Your task to perform on an android device: turn on translation in the chrome app Image 0: 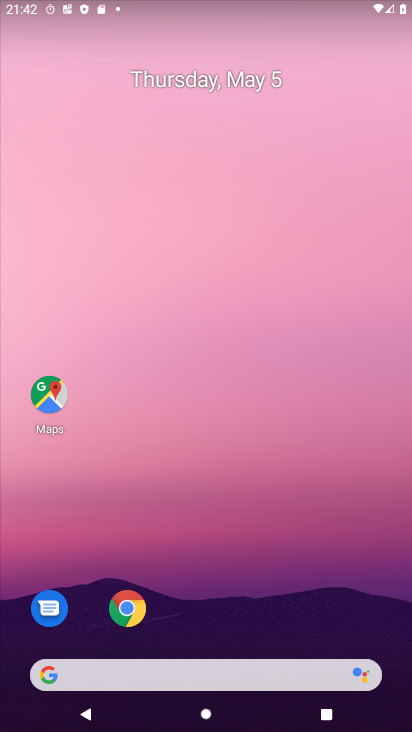
Step 0: drag from (301, 668) to (291, 9)
Your task to perform on an android device: turn on translation in the chrome app Image 1: 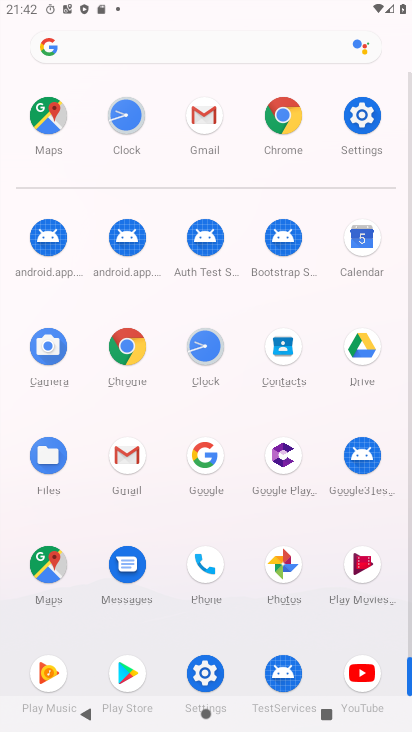
Step 1: click (135, 338)
Your task to perform on an android device: turn on translation in the chrome app Image 2: 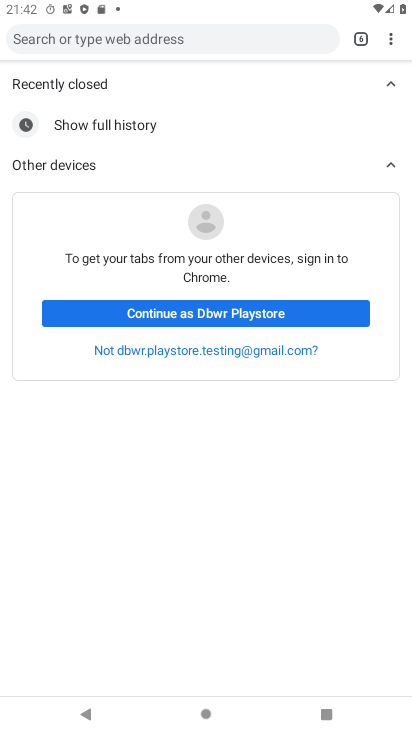
Step 2: click (392, 31)
Your task to perform on an android device: turn on translation in the chrome app Image 3: 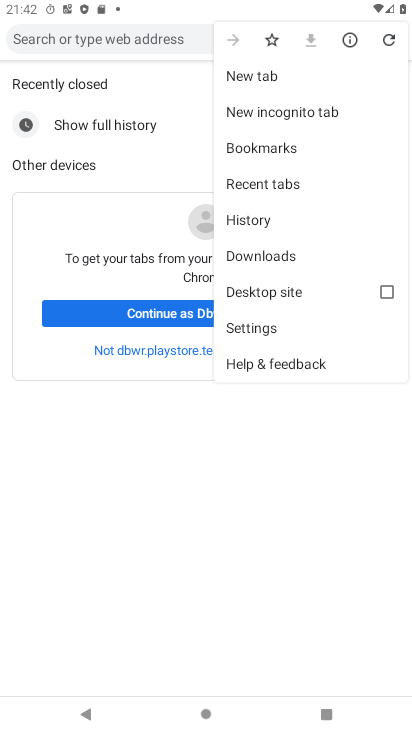
Step 3: click (265, 329)
Your task to perform on an android device: turn on translation in the chrome app Image 4: 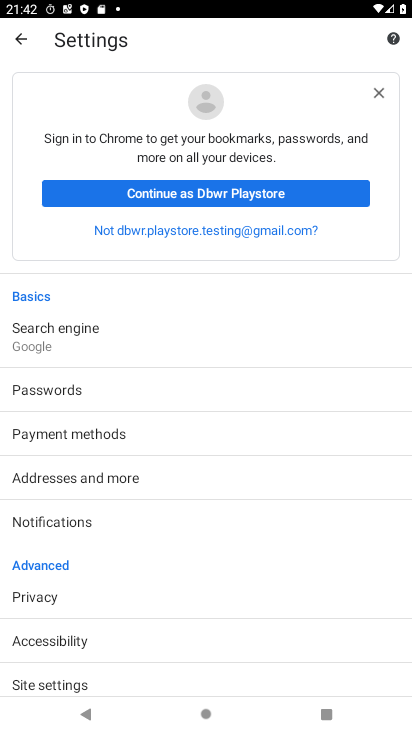
Step 4: drag from (114, 674) to (154, 198)
Your task to perform on an android device: turn on translation in the chrome app Image 5: 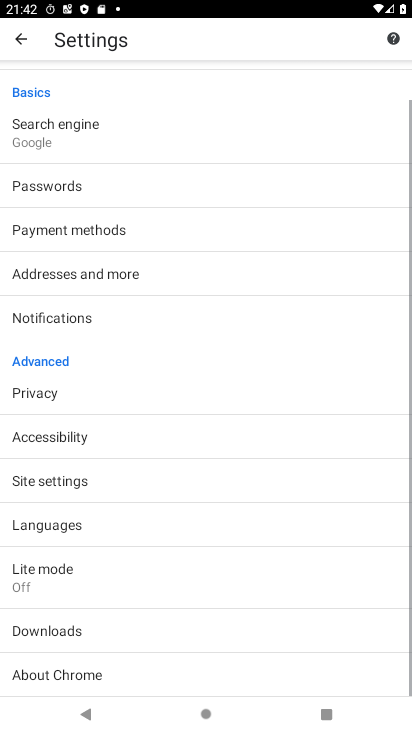
Step 5: click (80, 486)
Your task to perform on an android device: turn on translation in the chrome app Image 6: 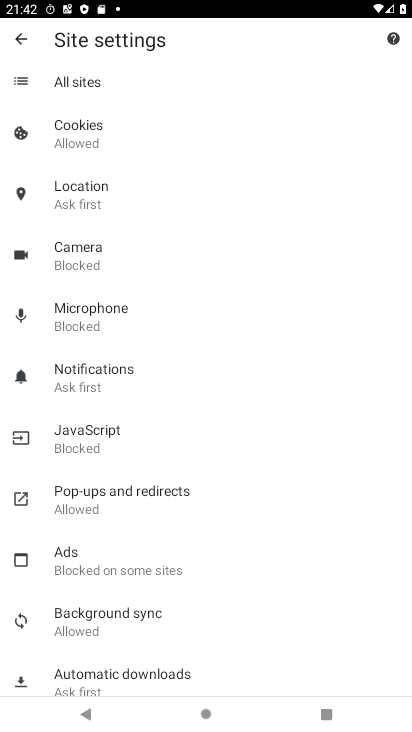
Step 6: drag from (144, 641) to (156, 47)
Your task to perform on an android device: turn on translation in the chrome app Image 7: 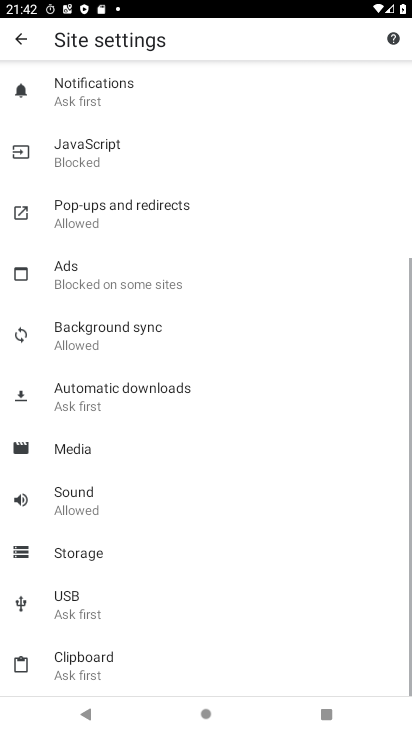
Step 7: drag from (162, 143) to (180, 676)
Your task to perform on an android device: turn on translation in the chrome app Image 8: 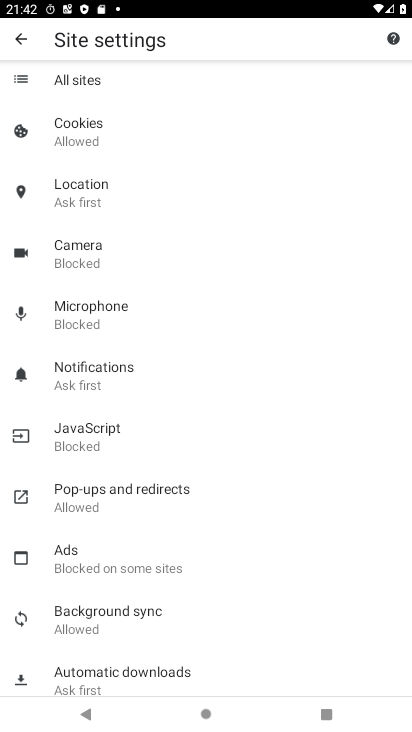
Step 8: press back button
Your task to perform on an android device: turn on translation in the chrome app Image 9: 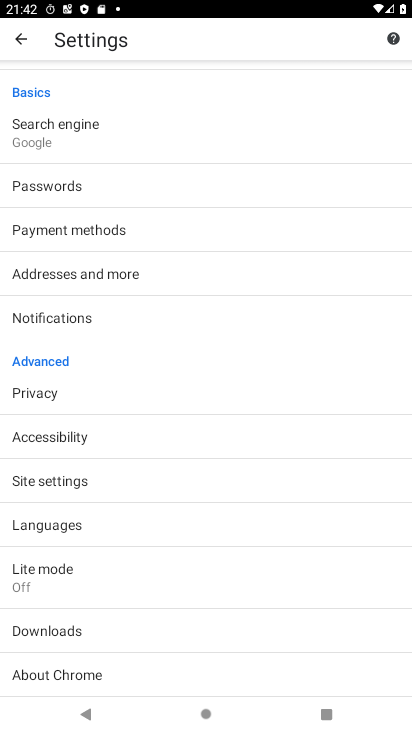
Step 9: click (69, 536)
Your task to perform on an android device: turn on translation in the chrome app Image 10: 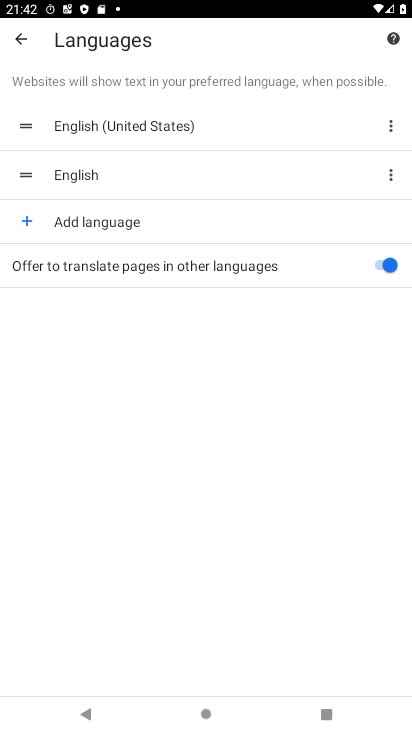
Step 10: task complete